Your task to perform on an android device: What's on my calendar today? Image 0: 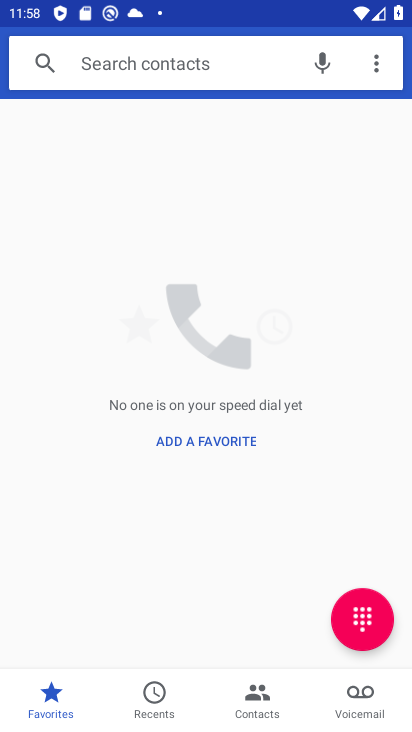
Step 0: press home button
Your task to perform on an android device: What's on my calendar today? Image 1: 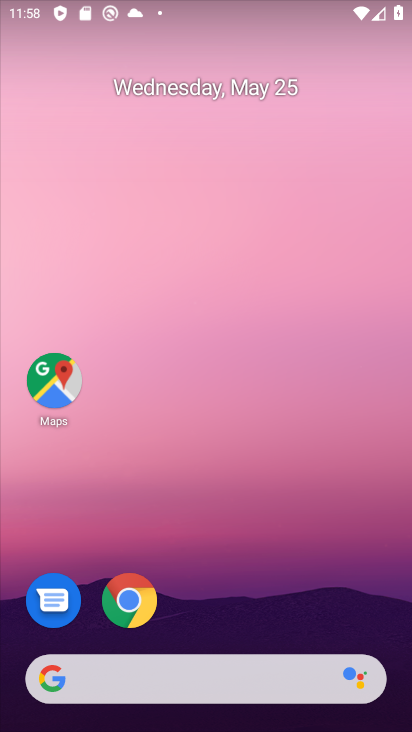
Step 1: drag from (296, 555) to (328, 140)
Your task to perform on an android device: What's on my calendar today? Image 2: 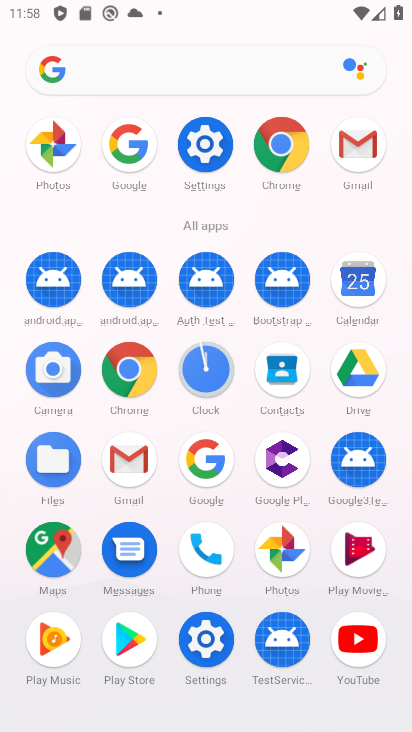
Step 2: click (368, 271)
Your task to perform on an android device: What's on my calendar today? Image 3: 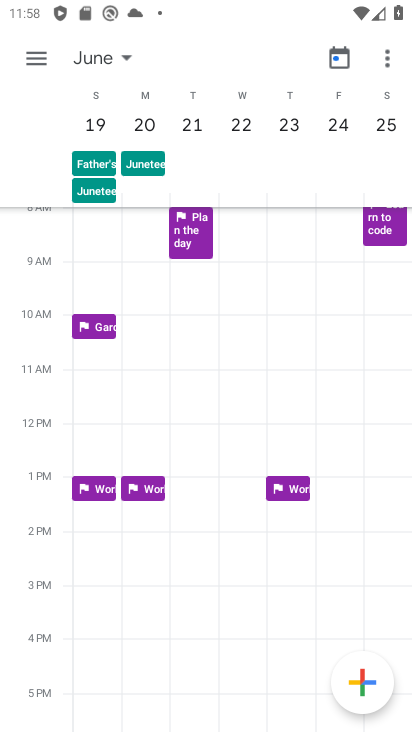
Step 3: click (122, 58)
Your task to perform on an android device: What's on my calendar today? Image 4: 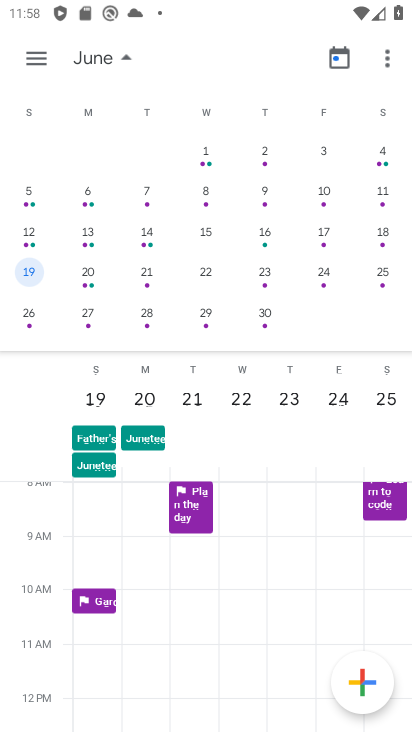
Step 4: drag from (38, 219) to (380, 231)
Your task to perform on an android device: What's on my calendar today? Image 5: 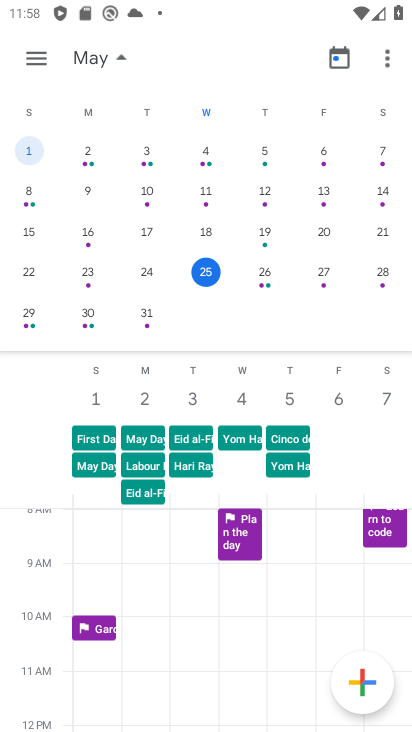
Step 5: click (204, 268)
Your task to perform on an android device: What's on my calendar today? Image 6: 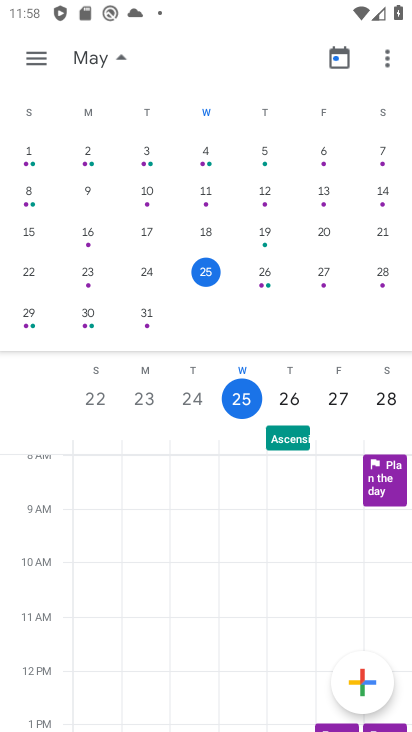
Step 6: task complete